Your task to perform on an android device: install app "Google Translate" Image 0: 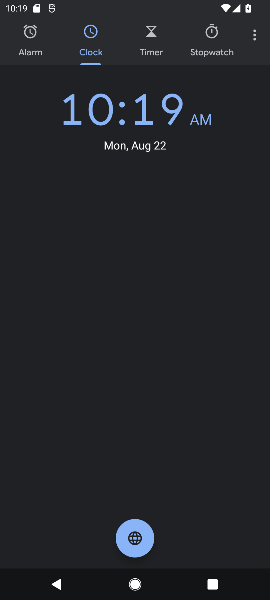
Step 0: press home button
Your task to perform on an android device: install app "Google Translate" Image 1: 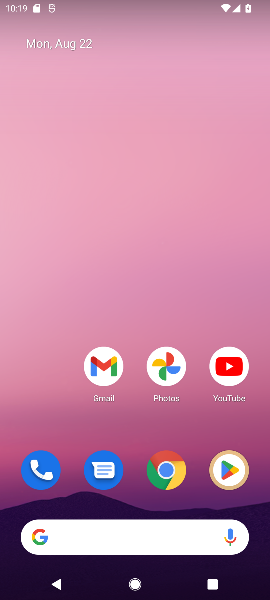
Step 1: drag from (105, 485) to (155, 0)
Your task to perform on an android device: install app "Google Translate" Image 2: 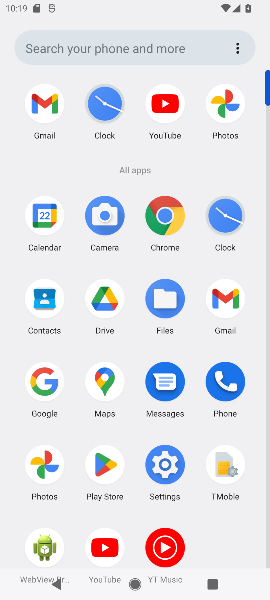
Step 2: click (99, 469)
Your task to perform on an android device: install app "Google Translate" Image 3: 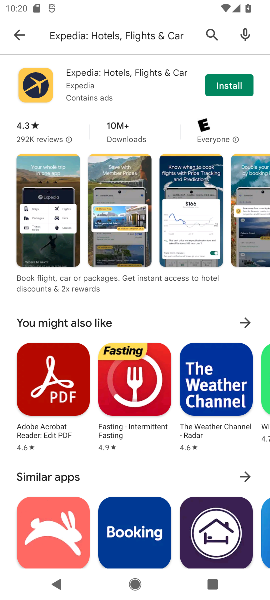
Step 3: press back button
Your task to perform on an android device: install app "Google Translate" Image 4: 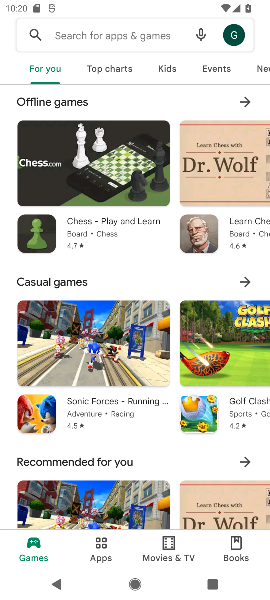
Step 4: click (95, 33)
Your task to perform on an android device: install app "Google Translate" Image 5: 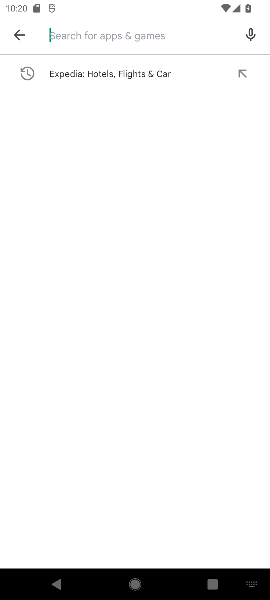
Step 5: type "Google Translate"
Your task to perform on an android device: install app "Google Translate" Image 6: 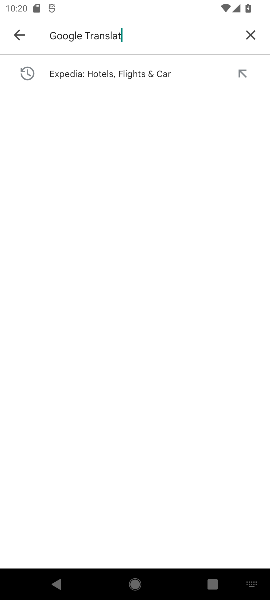
Step 6: press enter
Your task to perform on an android device: install app "Google Translate" Image 7: 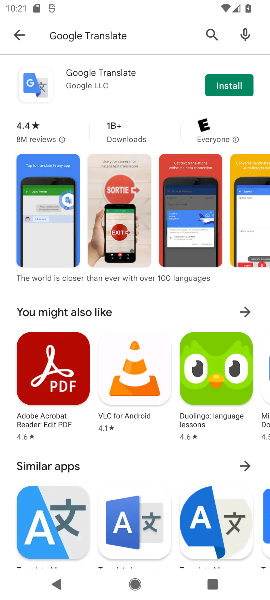
Step 7: click (229, 82)
Your task to perform on an android device: install app "Google Translate" Image 8: 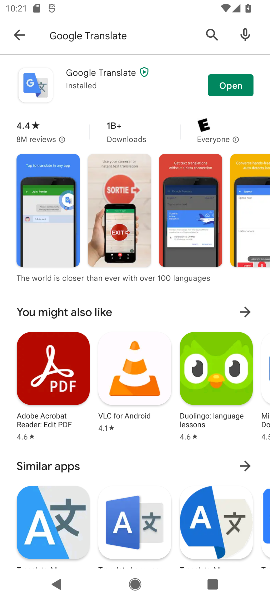
Step 8: click (225, 91)
Your task to perform on an android device: install app "Google Translate" Image 9: 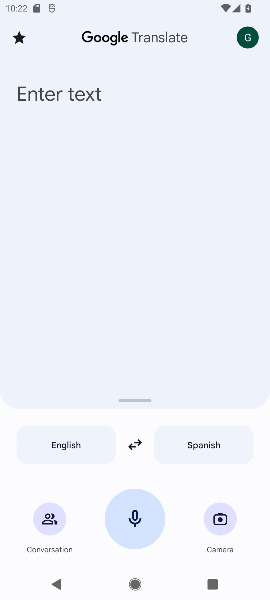
Step 9: task complete